Your task to perform on an android device: toggle pop-ups in chrome Image 0: 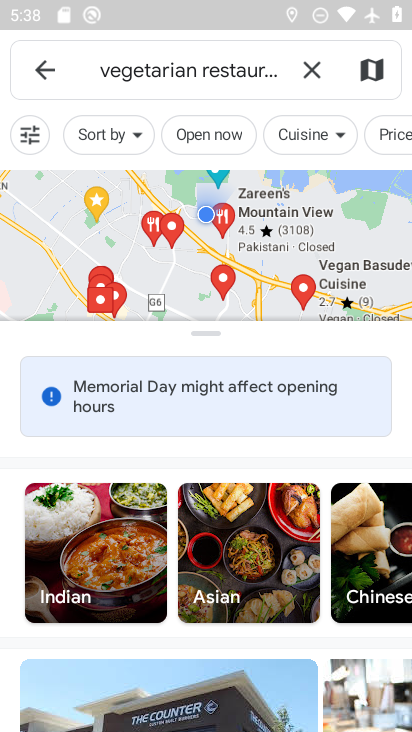
Step 0: press back button
Your task to perform on an android device: toggle pop-ups in chrome Image 1: 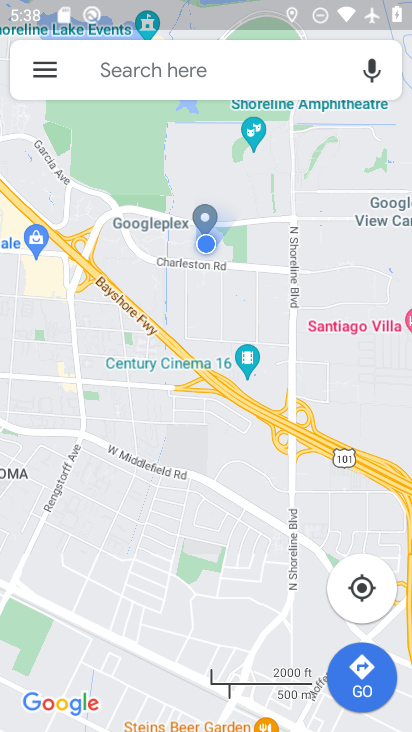
Step 1: press home button
Your task to perform on an android device: toggle pop-ups in chrome Image 2: 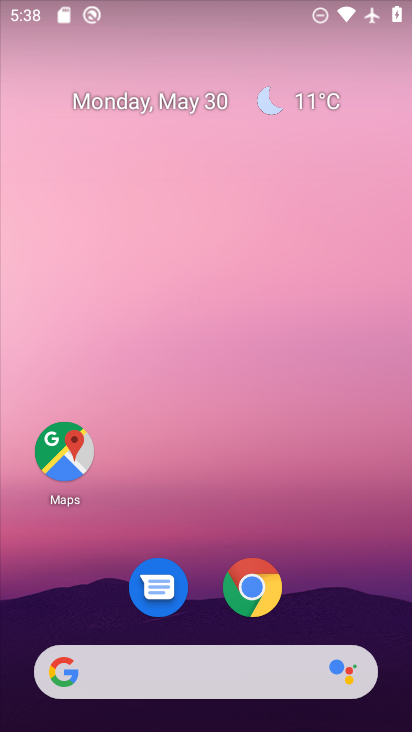
Step 2: drag from (303, 593) to (251, 11)
Your task to perform on an android device: toggle pop-ups in chrome Image 3: 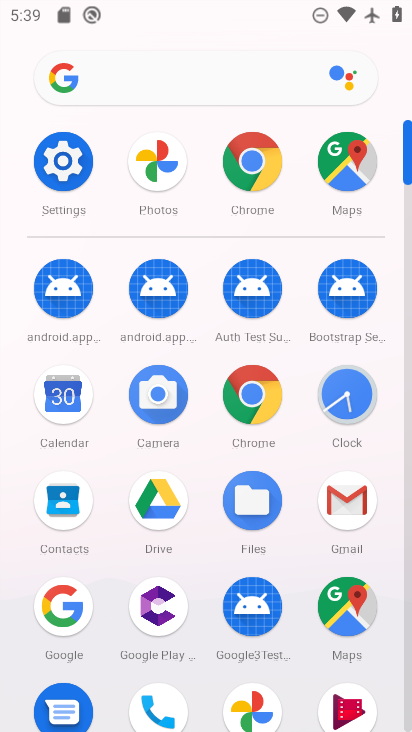
Step 3: click (250, 392)
Your task to perform on an android device: toggle pop-ups in chrome Image 4: 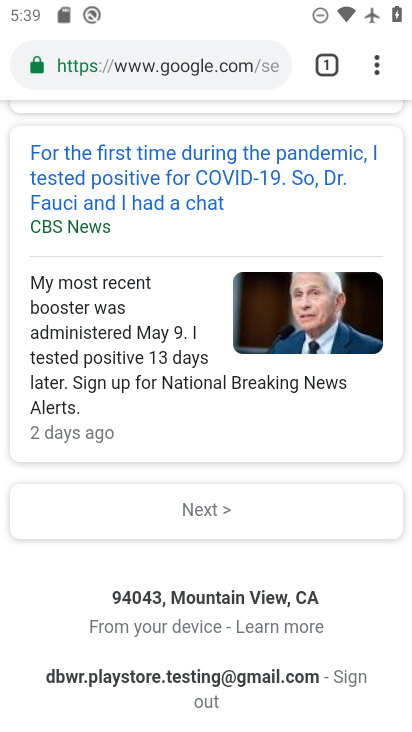
Step 4: drag from (376, 63) to (158, 637)
Your task to perform on an android device: toggle pop-ups in chrome Image 5: 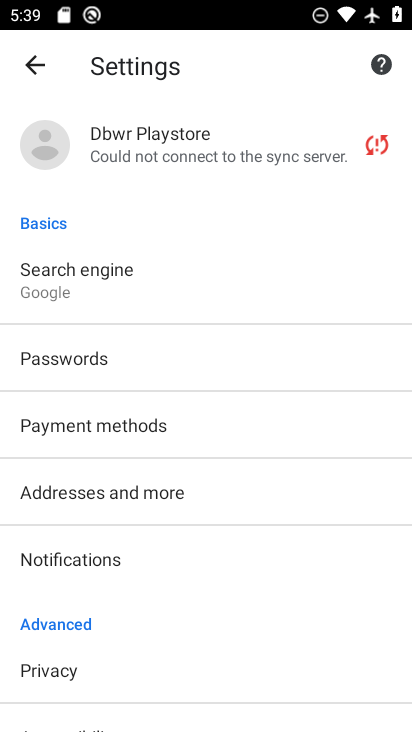
Step 5: drag from (214, 529) to (214, 172)
Your task to perform on an android device: toggle pop-ups in chrome Image 6: 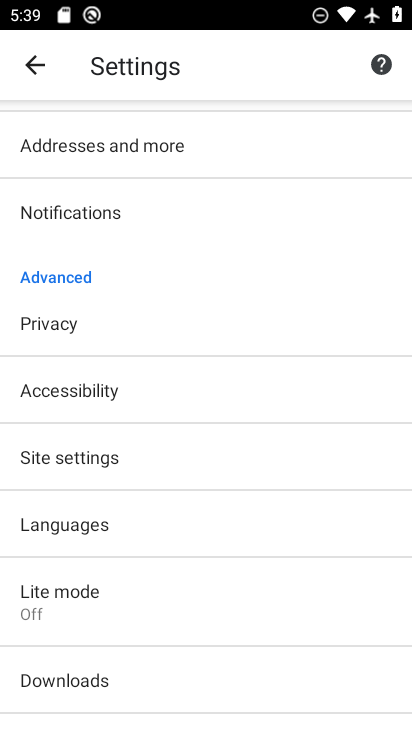
Step 6: drag from (223, 498) to (220, 137)
Your task to perform on an android device: toggle pop-ups in chrome Image 7: 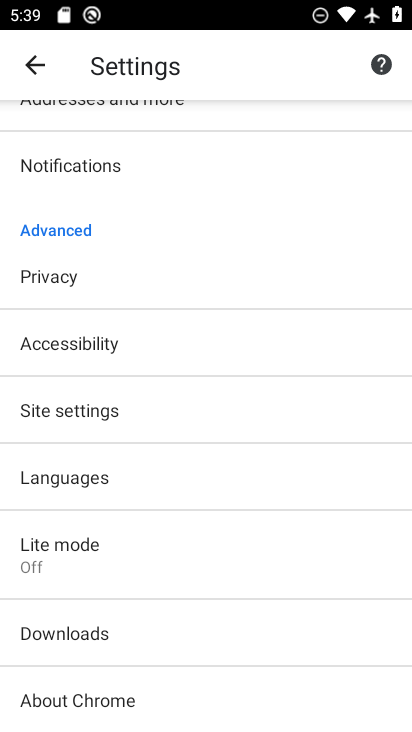
Step 7: click (105, 481)
Your task to perform on an android device: toggle pop-ups in chrome Image 8: 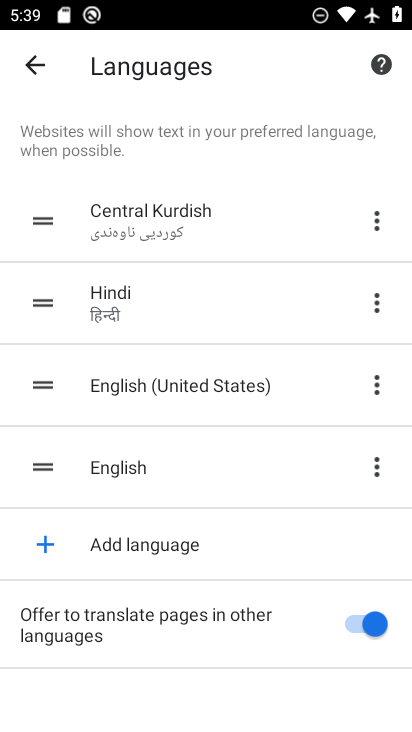
Step 8: click (44, 67)
Your task to perform on an android device: toggle pop-ups in chrome Image 9: 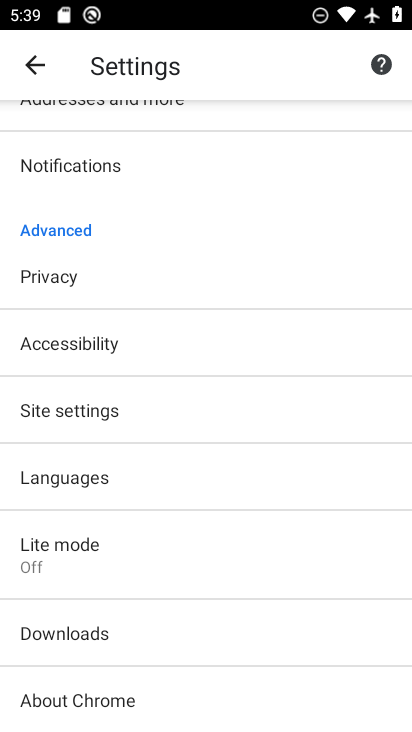
Step 9: click (111, 411)
Your task to perform on an android device: toggle pop-ups in chrome Image 10: 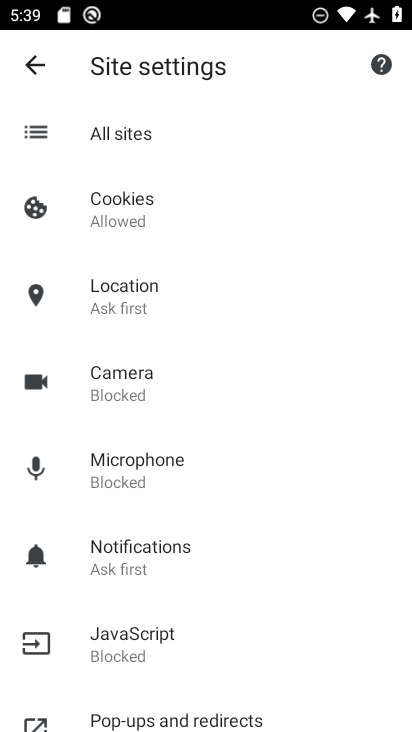
Step 10: drag from (284, 643) to (290, 330)
Your task to perform on an android device: toggle pop-ups in chrome Image 11: 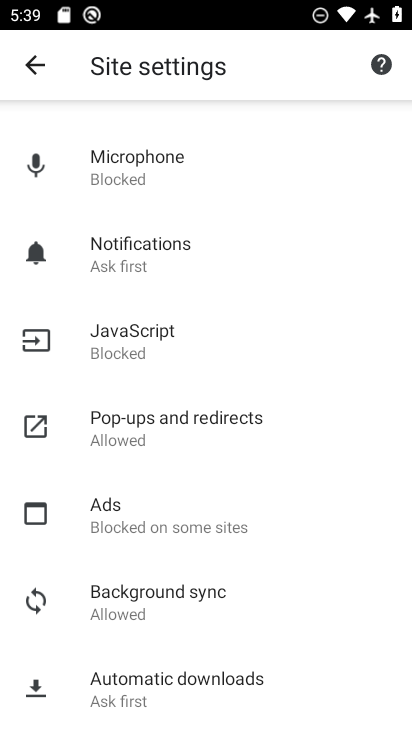
Step 11: click (167, 425)
Your task to perform on an android device: toggle pop-ups in chrome Image 12: 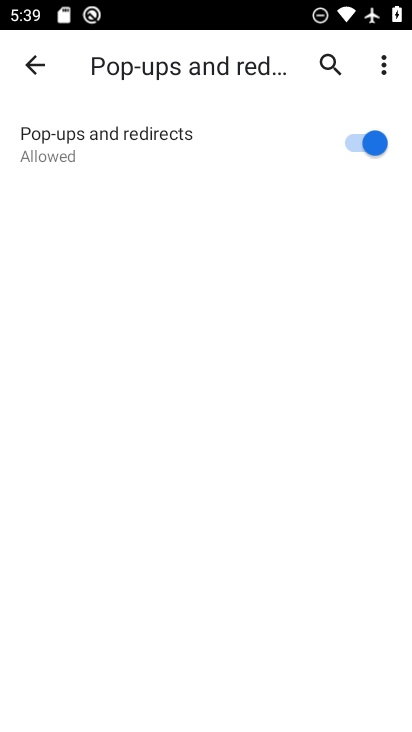
Step 12: click (357, 134)
Your task to perform on an android device: toggle pop-ups in chrome Image 13: 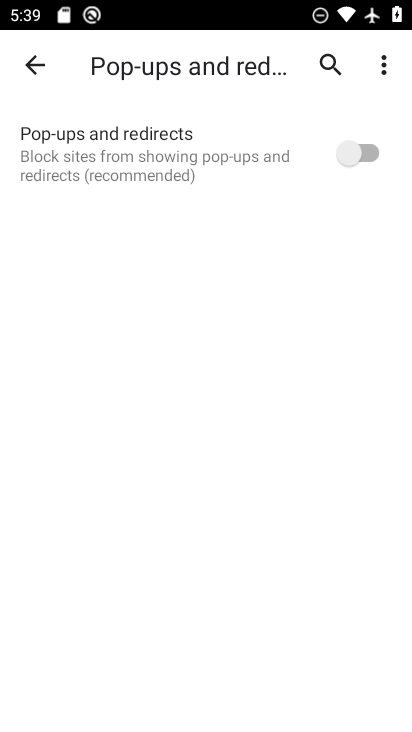
Step 13: task complete